Your task to perform on an android device: toggle javascript in the chrome app Image 0: 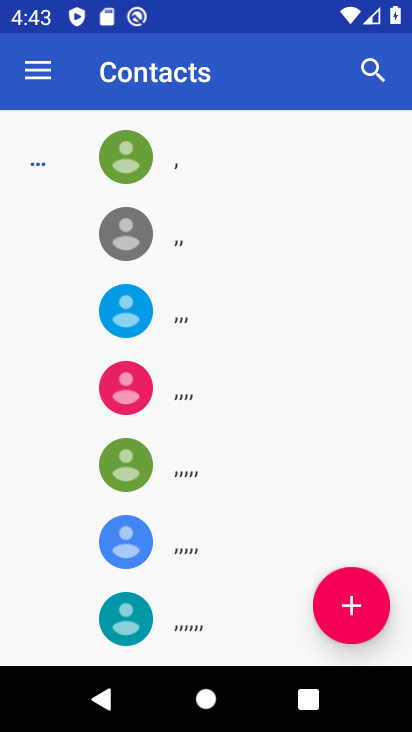
Step 0: press home button
Your task to perform on an android device: toggle javascript in the chrome app Image 1: 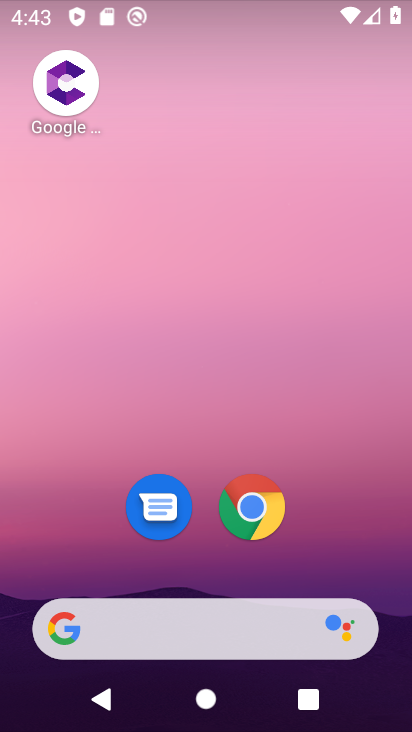
Step 1: drag from (344, 547) to (283, 57)
Your task to perform on an android device: toggle javascript in the chrome app Image 2: 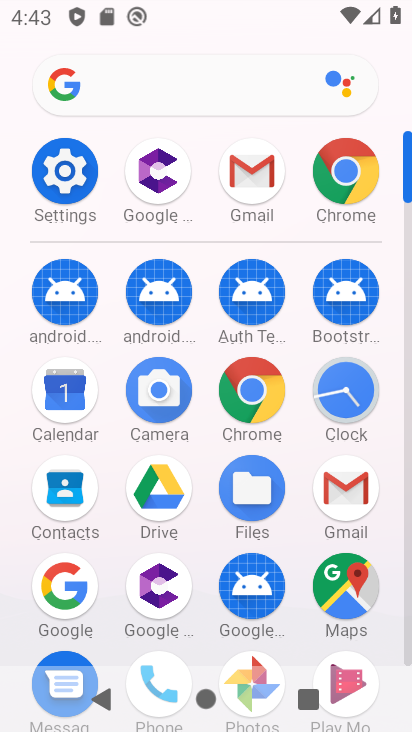
Step 2: click (363, 202)
Your task to perform on an android device: toggle javascript in the chrome app Image 3: 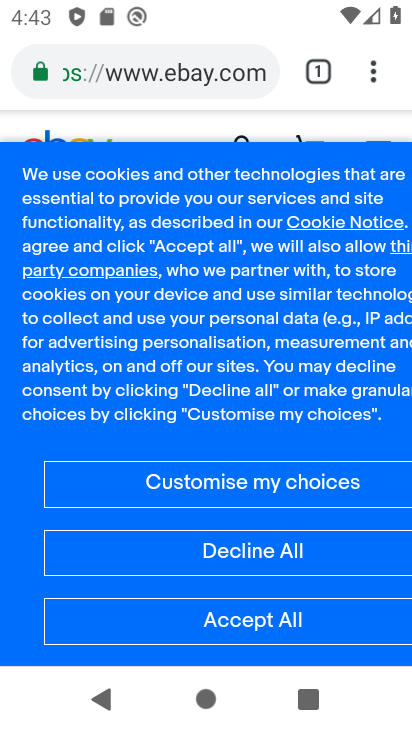
Step 3: drag from (377, 86) to (140, 514)
Your task to perform on an android device: toggle javascript in the chrome app Image 4: 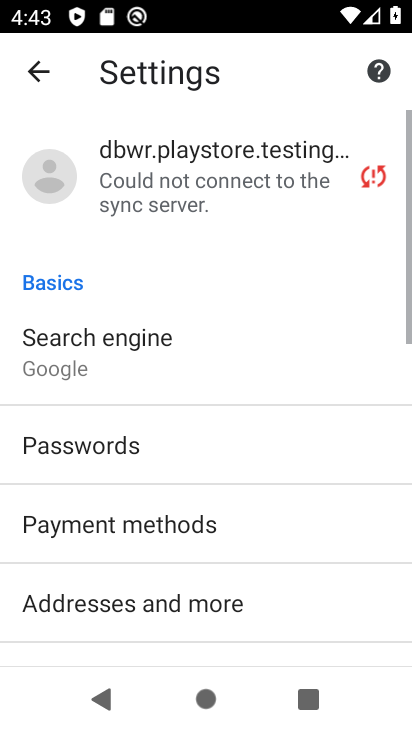
Step 4: drag from (139, 511) to (96, 161)
Your task to perform on an android device: toggle javascript in the chrome app Image 5: 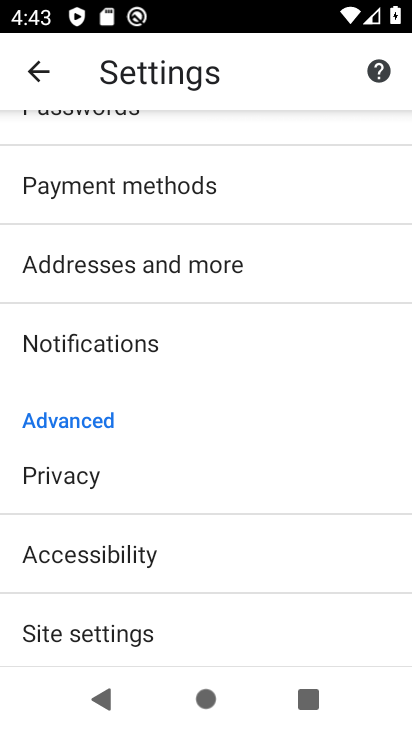
Step 5: drag from (187, 588) to (187, 294)
Your task to perform on an android device: toggle javascript in the chrome app Image 6: 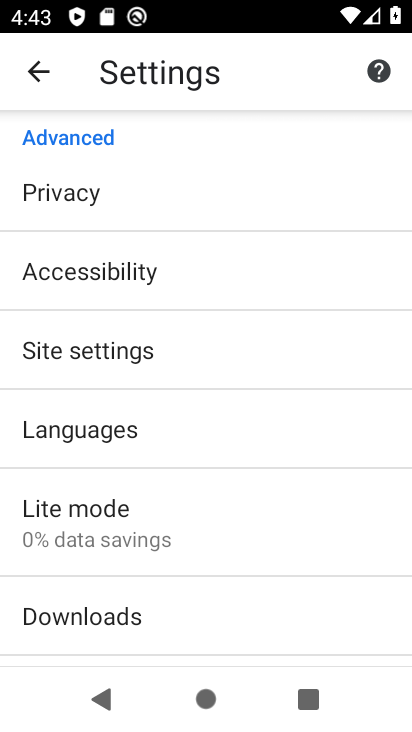
Step 6: click (185, 367)
Your task to perform on an android device: toggle javascript in the chrome app Image 7: 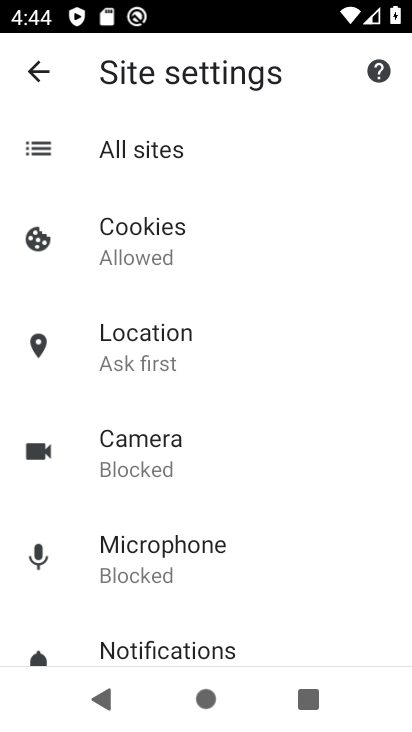
Step 7: drag from (228, 577) to (232, 150)
Your task to perform on an android device: toggle javascript in the chrome app Image 8: 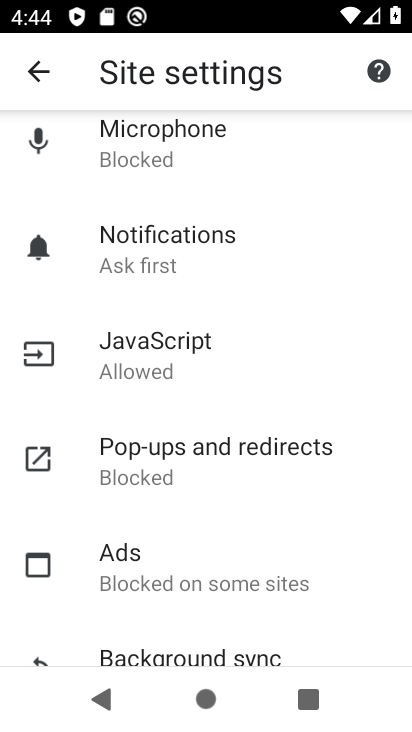
Step 8: click (169, 362)
Your task to perform on an android device: toggle javascript in the chrome app Image 9: 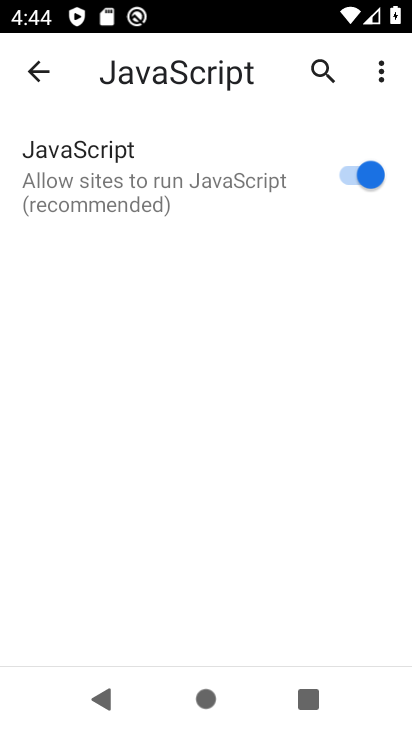
Step 9: click (348, 169)
Your task to perform on an android device: toggle javascript in the chrome app Image 10: 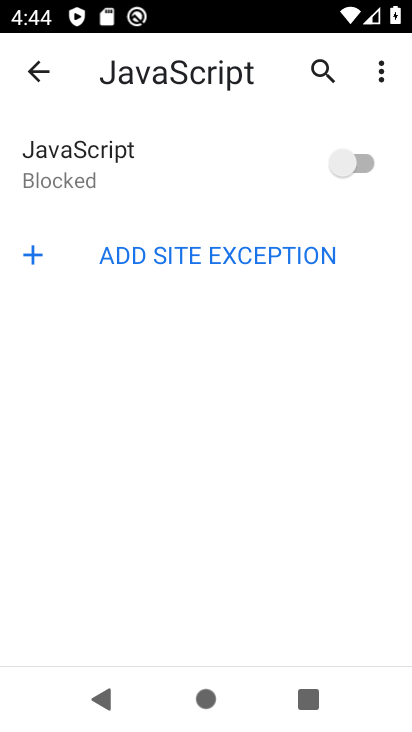
Step 10: task complete